Your task to perform on an android device: Open calendar and show me the second week of next month Image 0: 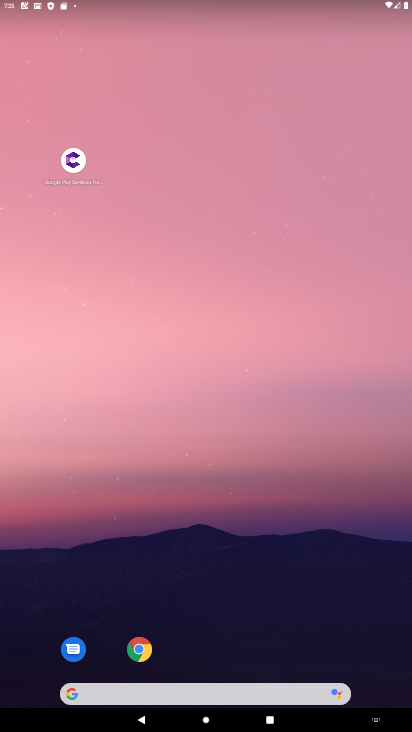
Step 0: drag from (214, 674) to (32, 100)
Your task to perform on an android device: Open calendar and show me the second week of next month Image 1: 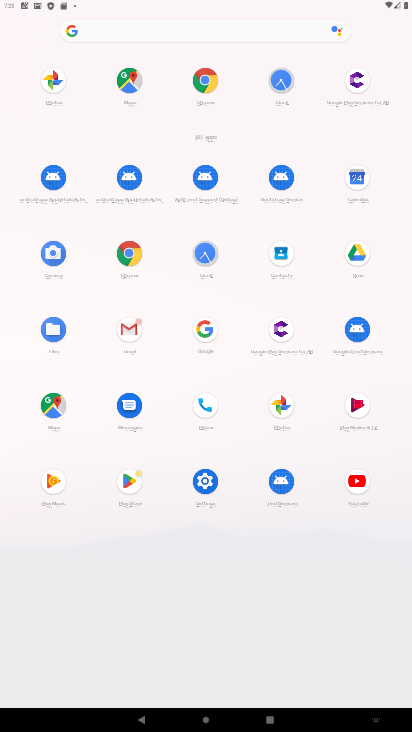
Step 1: click (363, 167)
Your task to perform on an android device: Open calendar and show me the second week of next month Image 2: 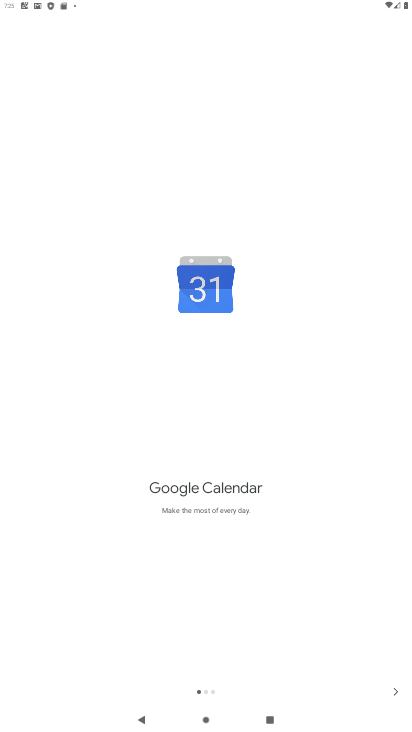
Step 2: click (393, 690)
Your task to perform on an android device: Open calendar and show me the second week of next month Image 3: 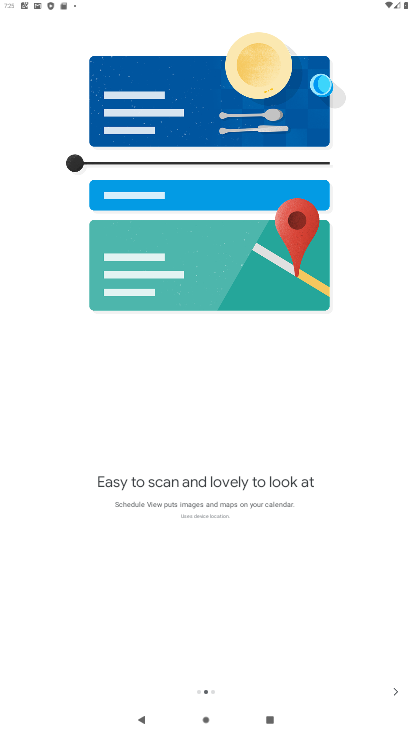
Step 3: click (397, 689)
Your task to perform on an android device: Open calendar and show me the second week of next month Image 4: 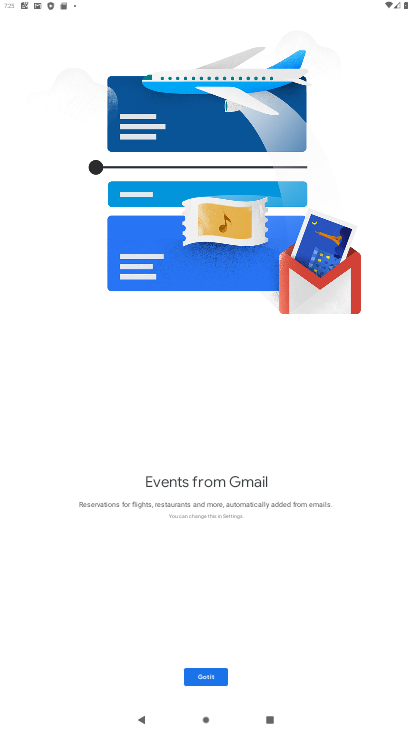
Step 4: click (215, 668)
Your task to perform on an android device: Open calendar and show me the second week of next month Image 5: 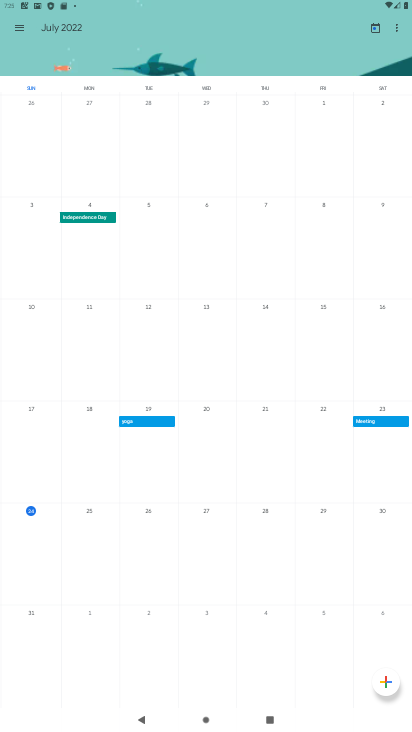
Step 5: click (13, 29)
Your task to perform on an android device: Open calendar and show me the second week of next month Image 6: 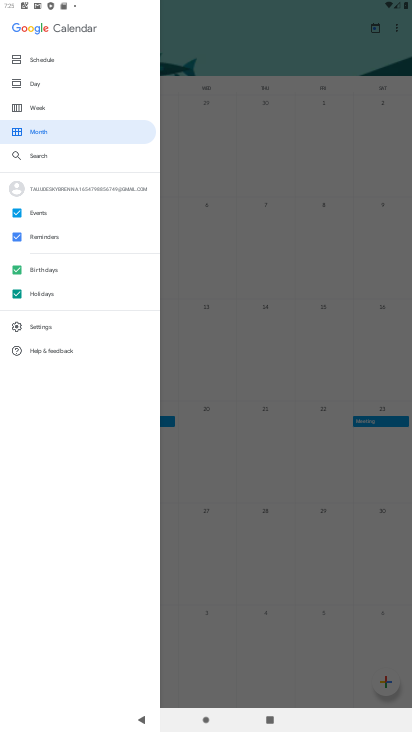
Step 6: click (33, 106)
Your task to perform on an android device: Open calendar and show me the second week of next month Image 7: 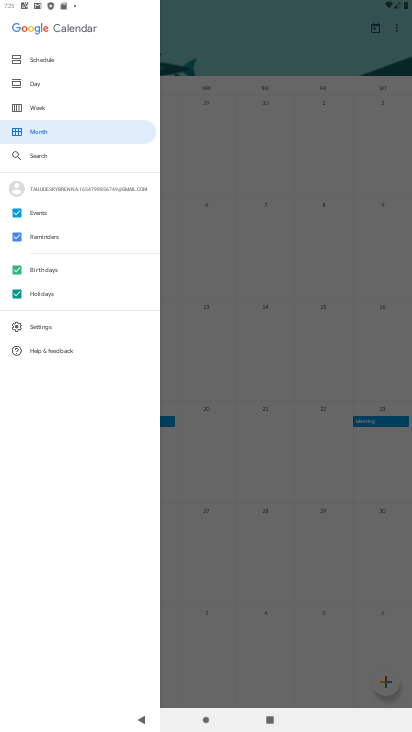
Step 7: click (33, 106)
Your task to perform on an android device: Open calendar and show me the second week of next month Image 8: 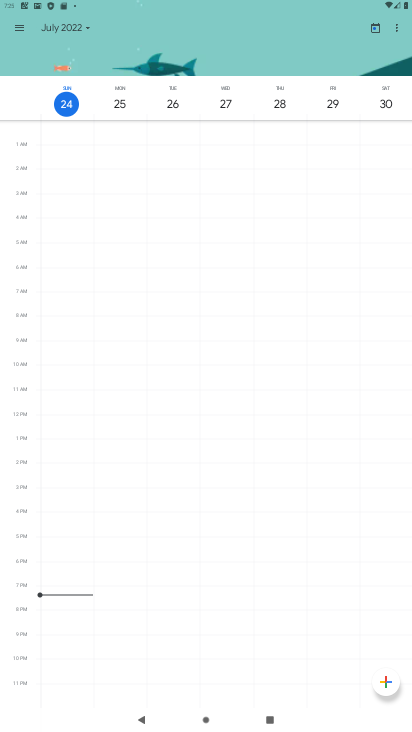
Step 8: task complete